Your task to perform on an android device: Search for a coffee table on IKEA Image 0: 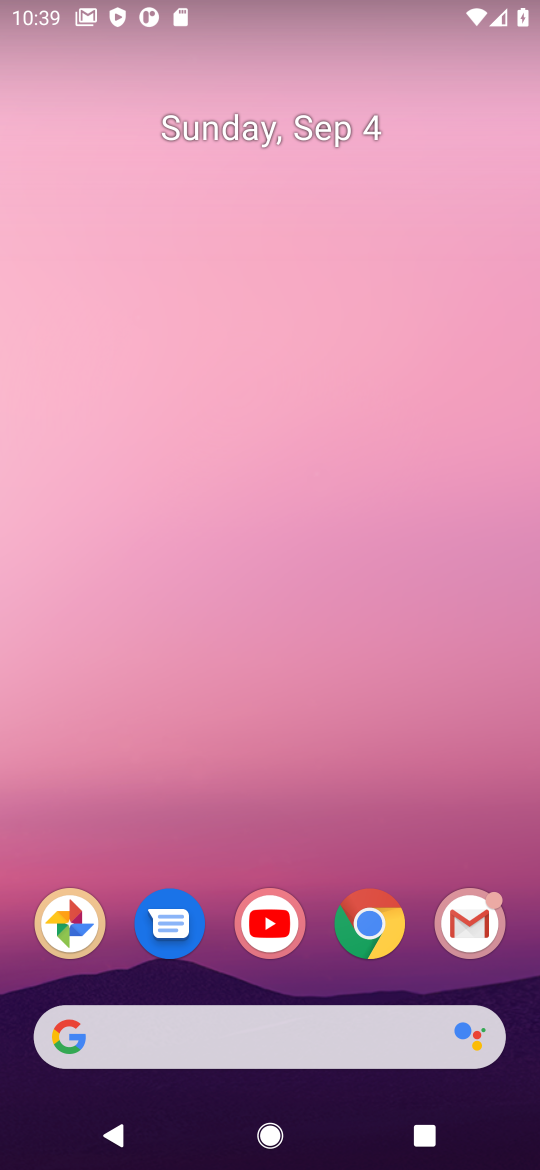
Step 0: click (352, 935)
Your task to perform on an android device: Search for a coffee table on IKEA Image 1: 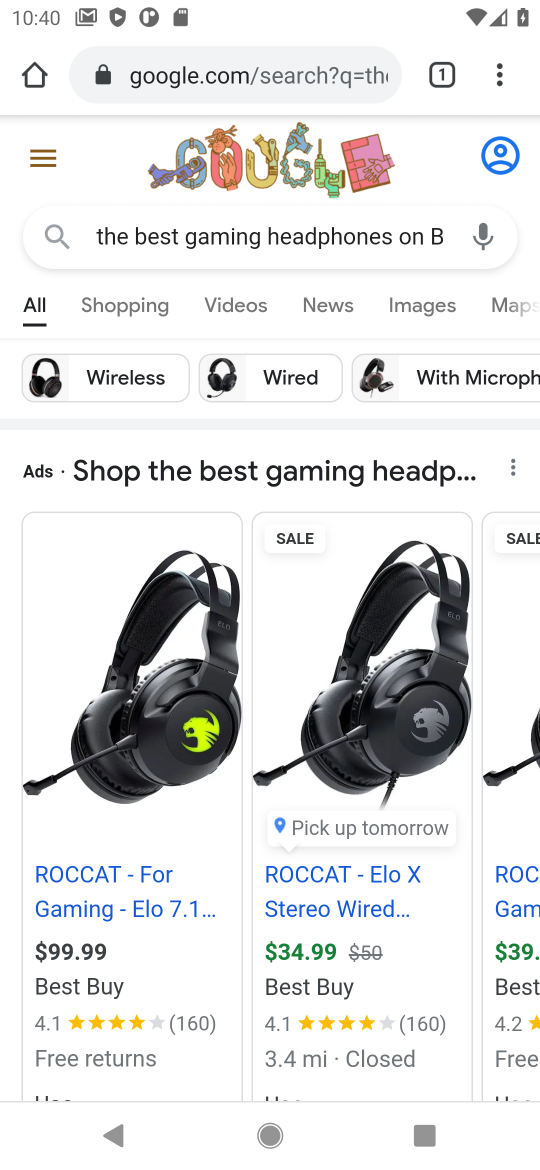
Step 1: click (184, 87)
Your task to perform on an android device: Search for a coffee table on IKEA Image 2: 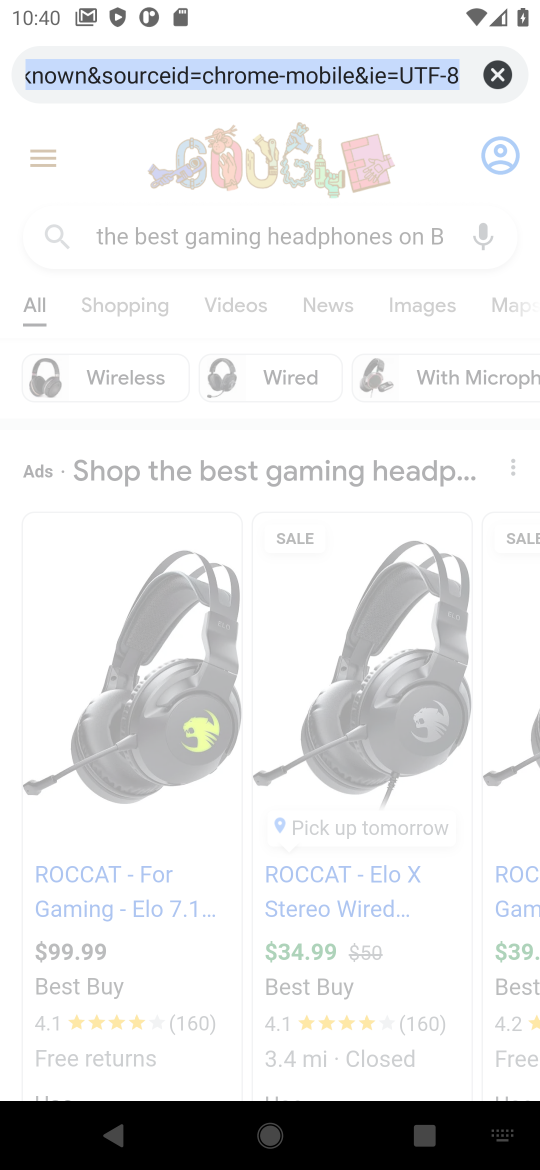
Step 2: click (486, 72)
Your task to perform on an android device: Search for a coffee table on IKEA Image 3: 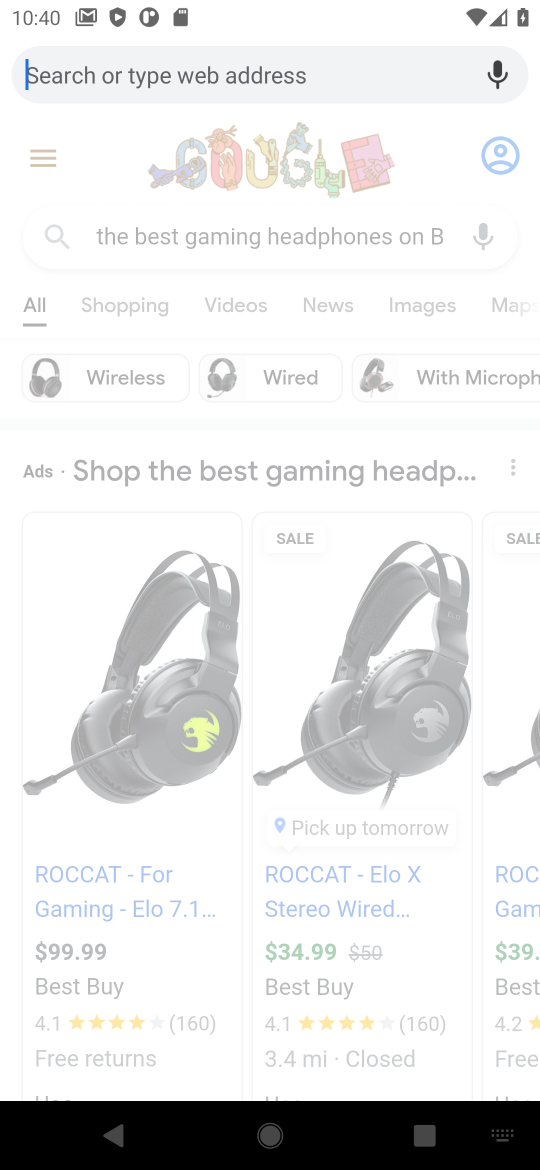
Step 3: type " coffee table on IKEA"
Your task to perform on an android device: Search for a coffee table on IKEA Image 4: 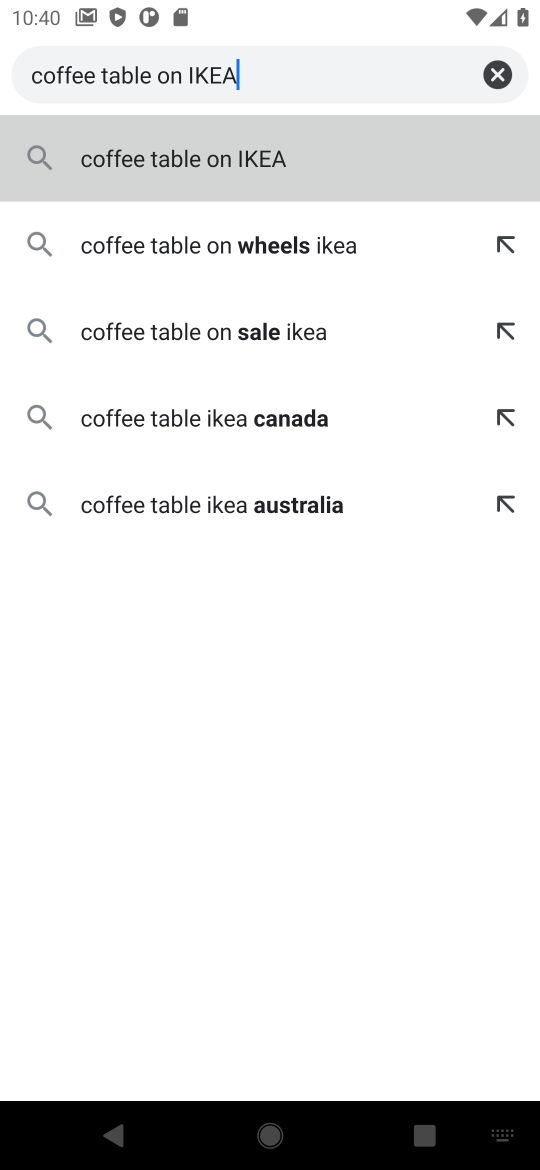
Step 4: click (239, 166)
Your task to perform on an android device: Search for a coffee table on IKEA Image 5: 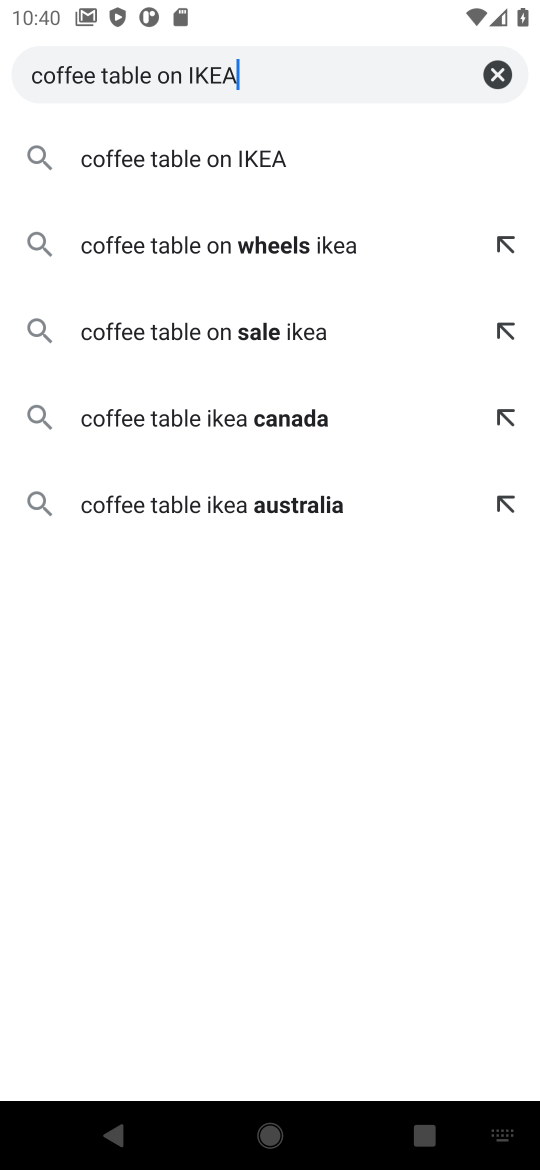
Step 5: click (191, 149)
Your task to perform on an android device: Search for a coffee table on IKEA Image 6: 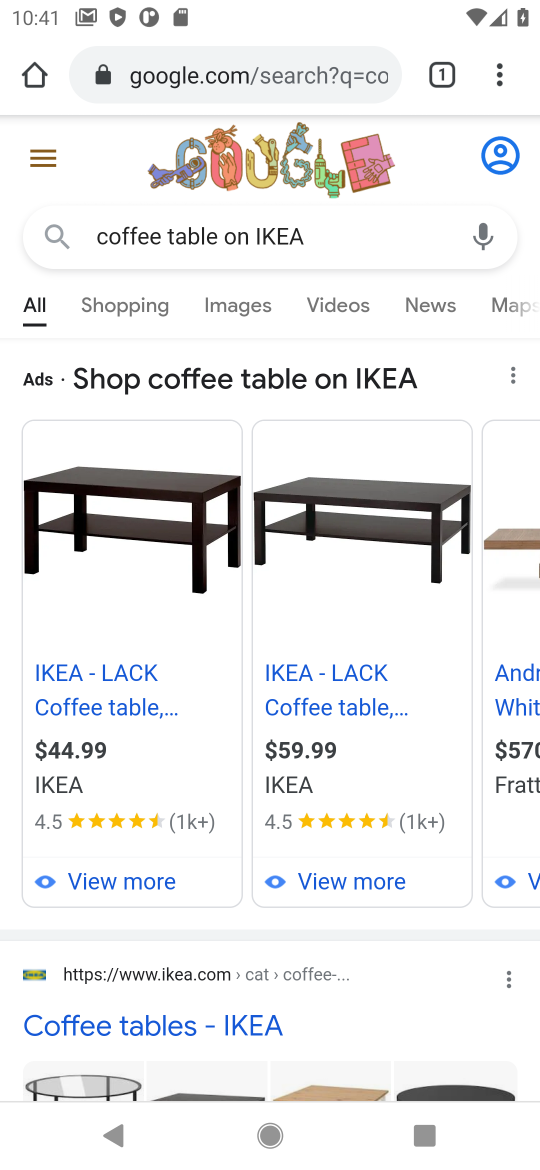
Step 6: task complete